Your task to perform on an android device: check android version Image 0: 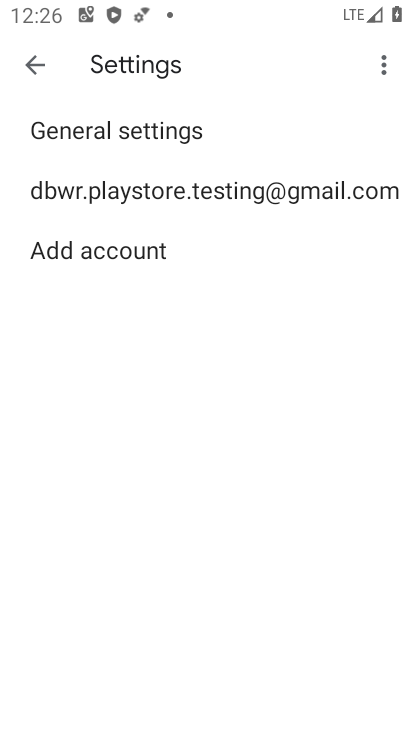
Step 0: press back button
Your task to perform on an android device: check android version Image 1: 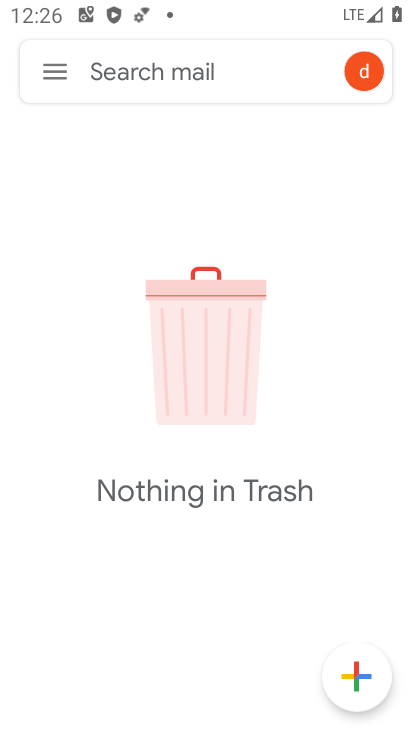
Step 1: press back button
Your task to perform on an android device: check android version Image 2: 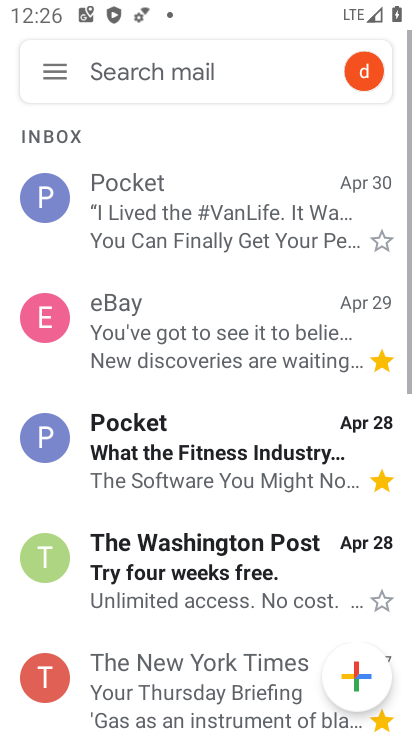
Step 2: press back button
Your task to perform on an android device: check android version Image 3: 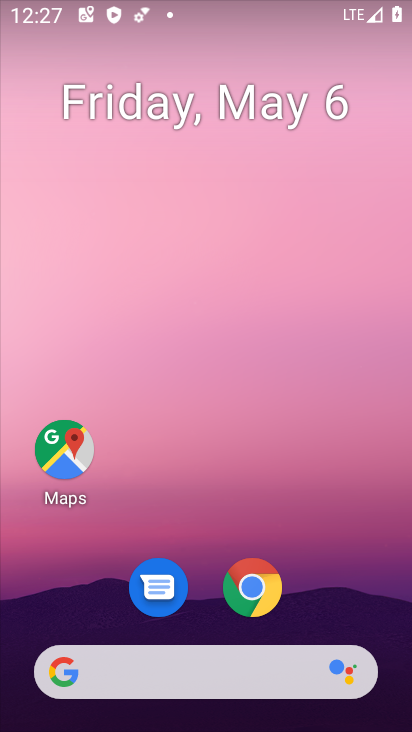
Step 3: press back button
Your task to perform on an android device: check android version Image 4: 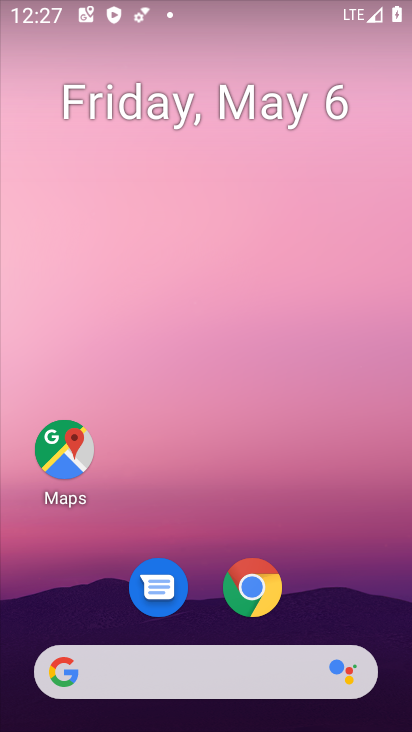
Step 4: drag from (172, 606) to (296, 6)
Your task to perform on an android device: check android version Image 5: 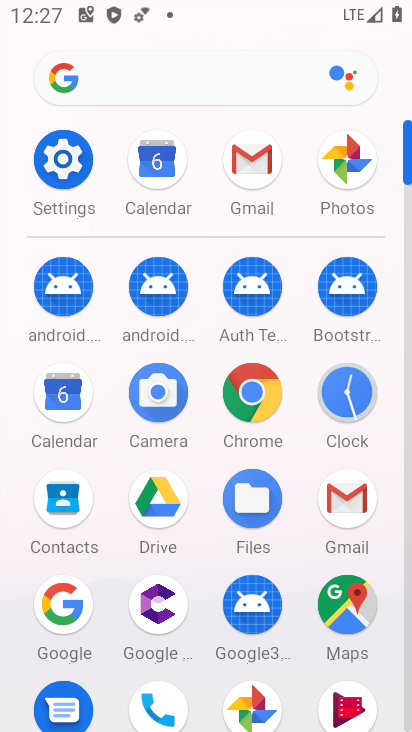
Step 5: click (62, 148)
Your task to perform on an android device: check android version Image 6: 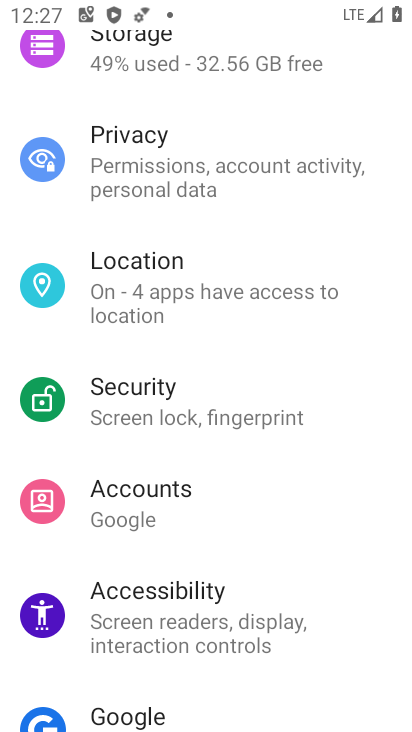
Step 6: drag from (217, 628) to (343, 25)
Your task to perform on an android device: check android version Image 7: 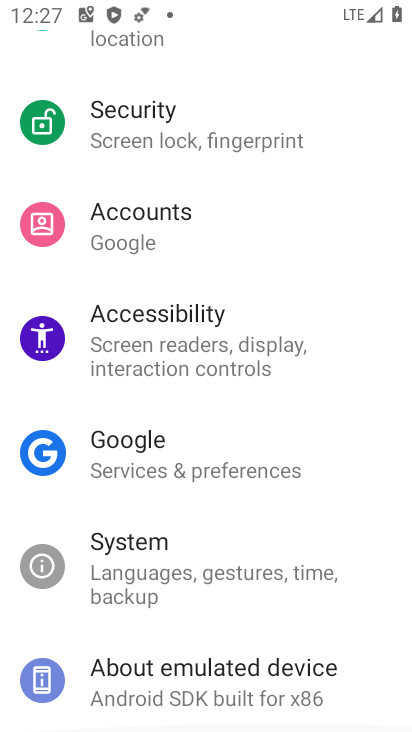
Step 7: drag from (182, 652) to (325, 93)
Your task to perform on an android device: check android version Image 8: 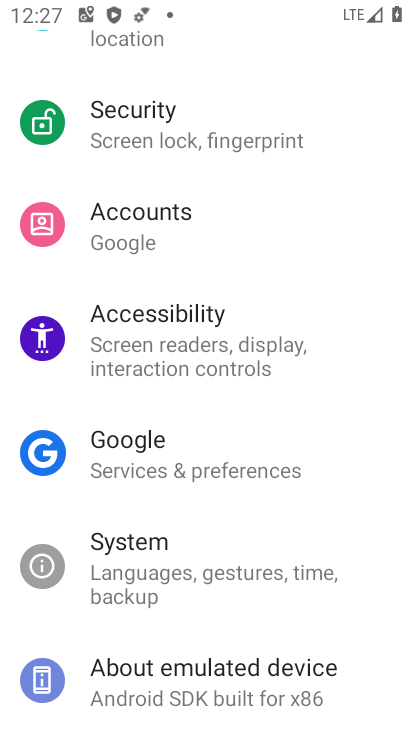
Step 8: drag from (244, 234) to (340, 83)
Your task to perform on an android device: check android version Image 9: 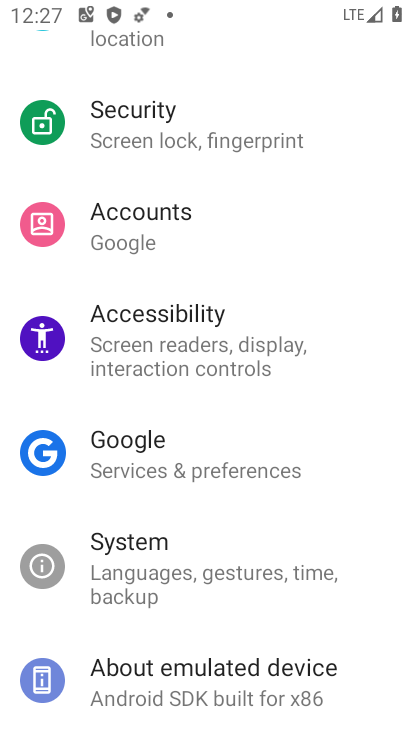
Step 9: drag from (181, 684) to (289, 31)
Your task to perform on an android device: check android version Image 10: 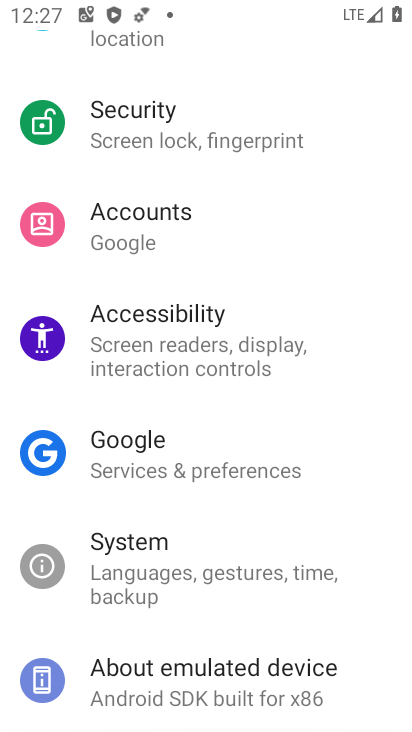
Step 10: click (237, 671)
Your task to perform on an android device: check android version Image 11: 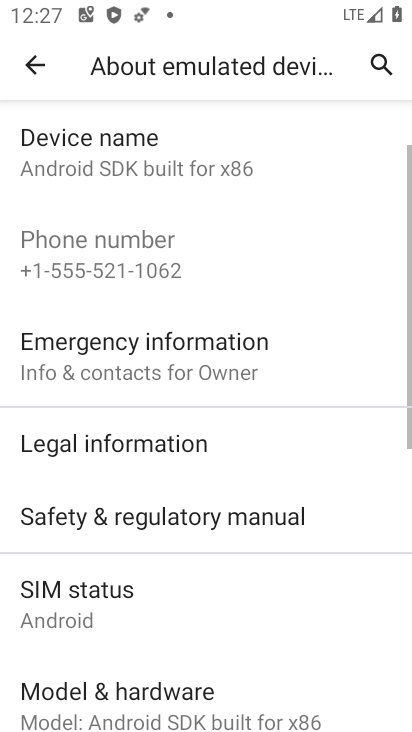
Step 11: drag from (144, 703) to (250, 121)
Your task to perform on an android device: check android version Image 12: 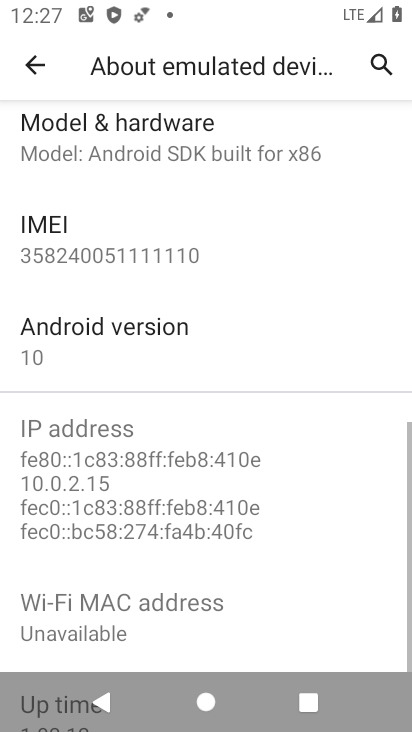
Step 12: click (115, 349)
Your task to perform on an android device: check android version Image 13: 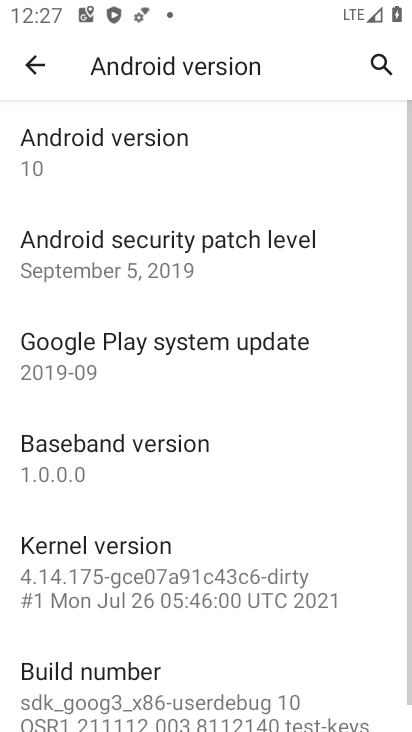
Step 13: click (127, 144)
Your task to perform on an android device: check android version Image 14: 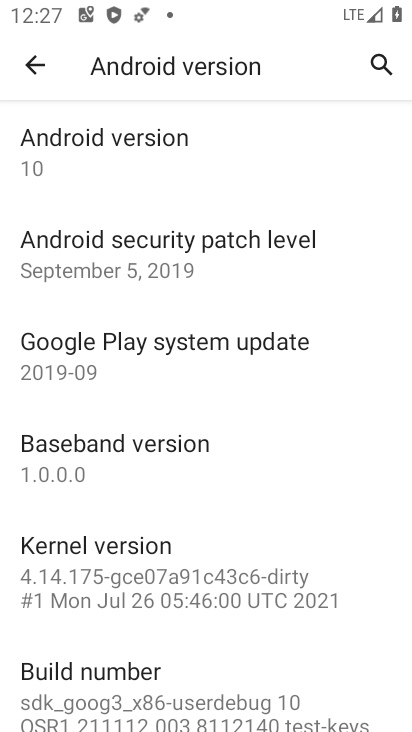
Step 14: task complete